Your task to perform on an android device: What's the weather going to be this weekend? Image 0: 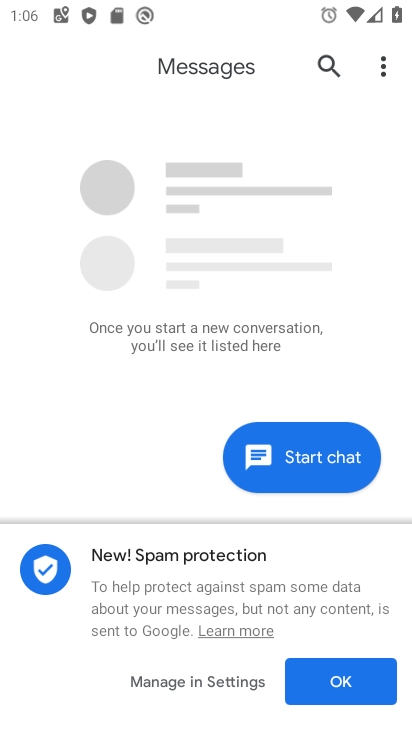
Step 0: press home button
Your task to perform on an android device: What's the weather going to be this weekend? Image 1: 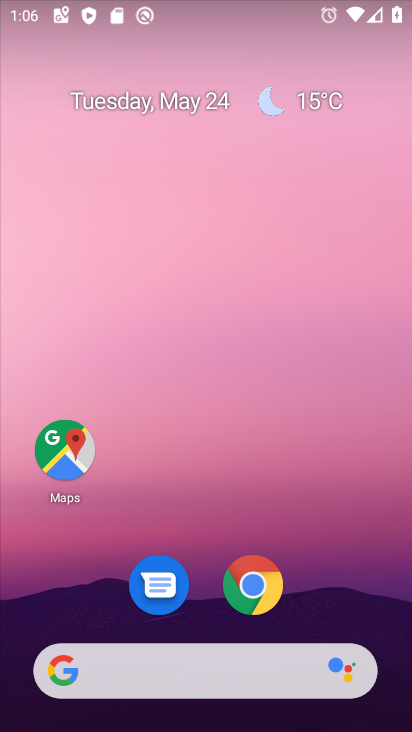
Step 1: click (185, 668)
Your task to perform on an android device: What's the weather going to be this weekend? Image 2: 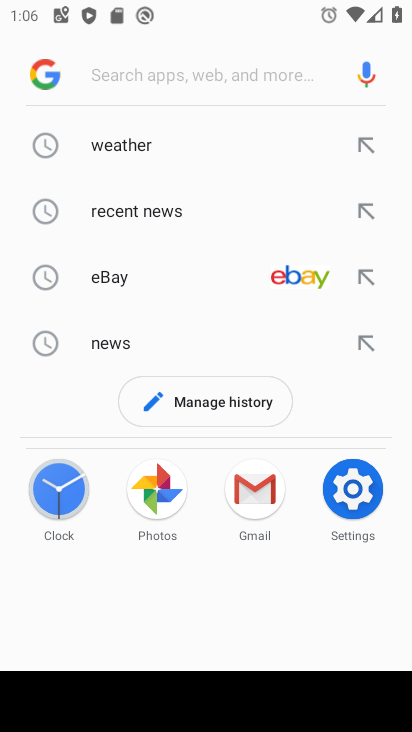
Step 2: click (120, 133)
Your task to perform on an android device: What's the weather going to be this weekend? Image 3: 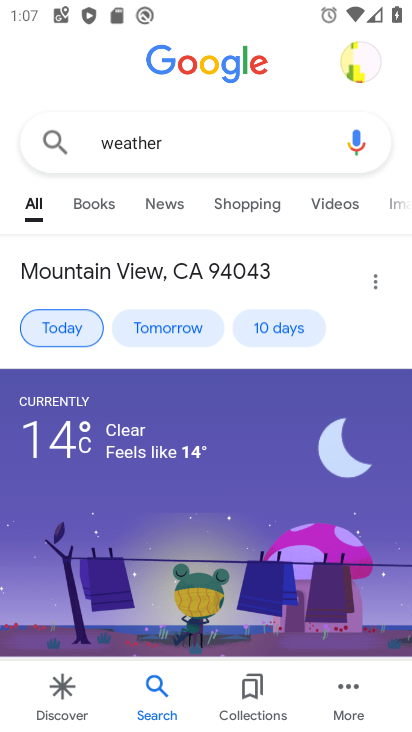
Step 3: click (79, 316)
Your task to perform on an android device: What's the weather going to be this weekend? Image 4: 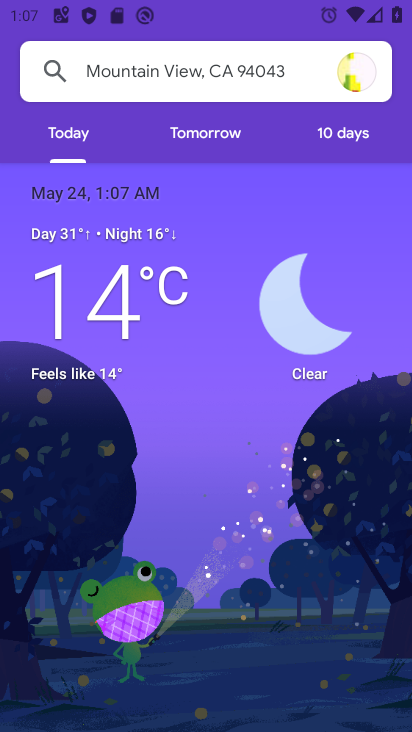
Step 4: click (327, 129)
Your task to perform on an android device: What's the weather going to be this weekend? Image 5: 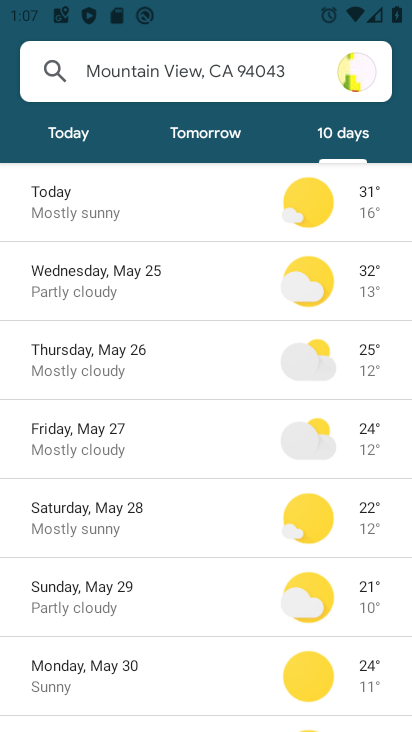
Step 5: click (146, 506)
Your task to perform on an android device: What's the weather going to be this weekend? Image 6: 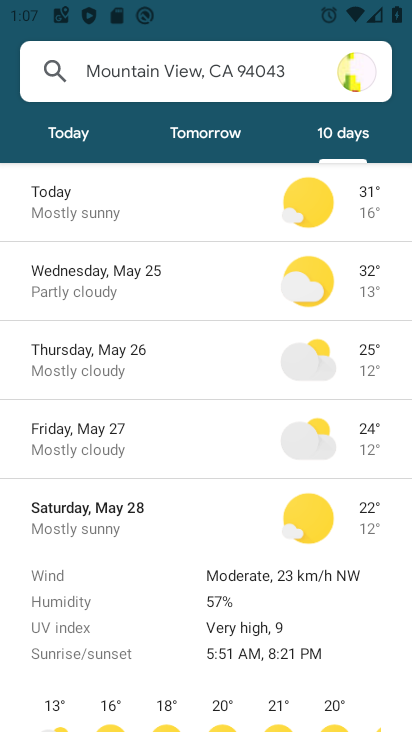
Step 6: task complete